Your task to perform on an android device: Search for vegetarian restaurants on Maps Image 0: 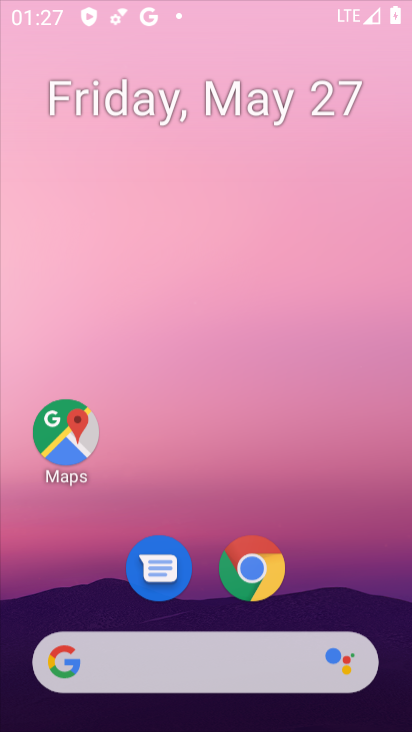
Step 0: drag from (229, 623) to (162, 1)
Your task to perform on an android device: Search for vegetarian restaurants on Maps Image 1: 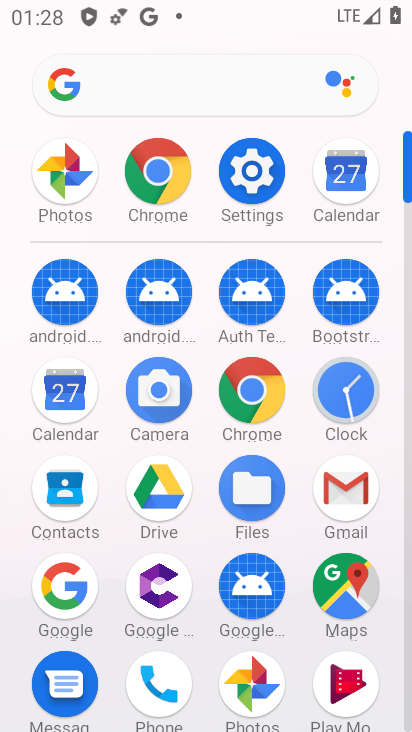
Step 1: click (351, 591)
Your task to perform on an android device: Search for vegetarian restaurants on Maps Image 2: 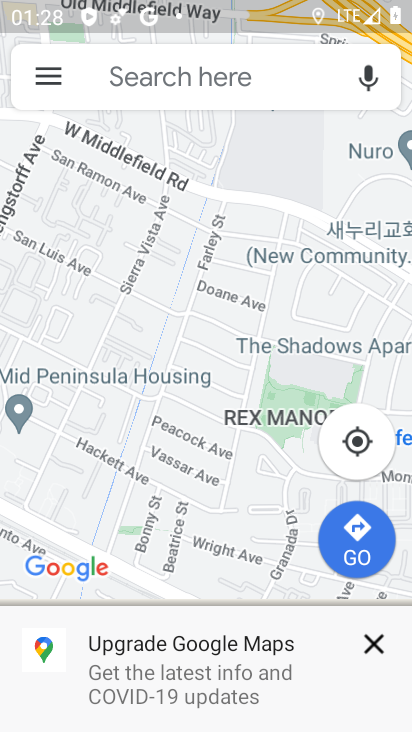
Step 2: click (171, 77)
Your task to perform on an android device: Search for vegetarian restaurants on Maps Image 3: 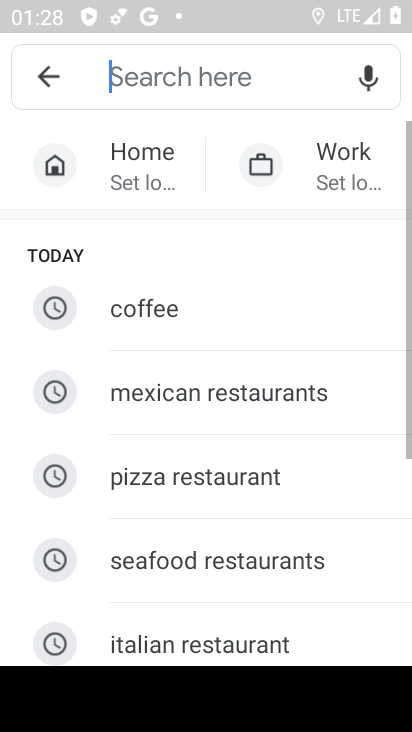
Step 3: drag from (197, 570) to (159, 223)
Your task to perform on an android device: Search for vegetarian restaurants on Maps Image 4: 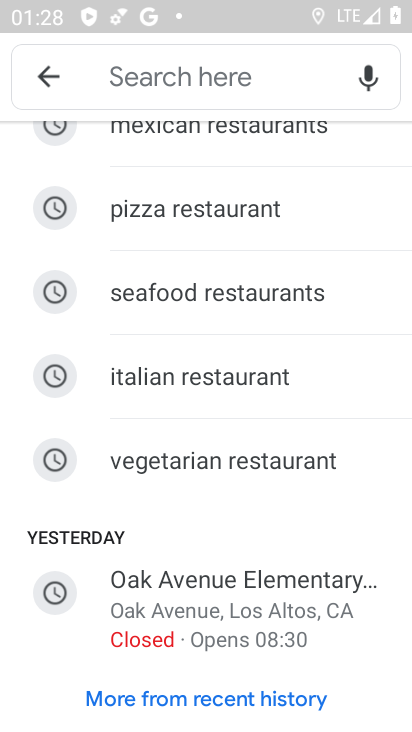
Step 4: click (181, 458)
Your task to perform on an android device: Search for vegetarian restaurants on Maps Image 5: 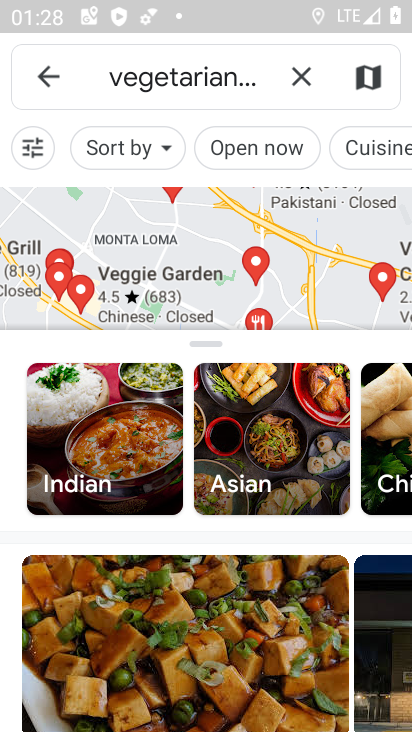
Step 5: task complete